Your task to perform on an android device: toggle notifications settings in the gmail app Image 0: 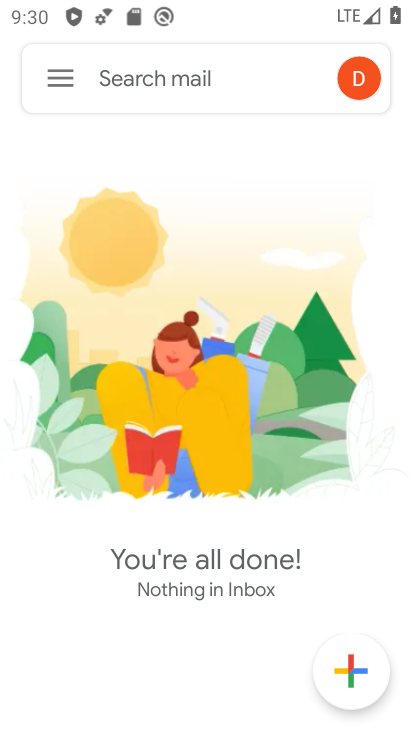
Step 0: press home button
Your task to perform on an android device: toggle notifications settings in the gmail app Image 1: 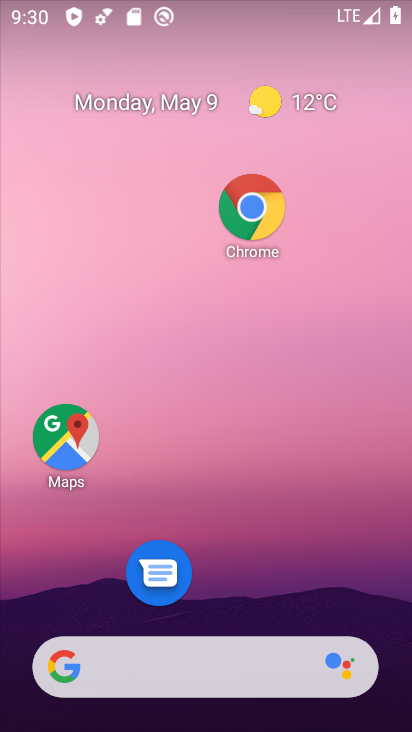
Step 1: drag from (298, 562) to (354, 146)
Your task to perform on an android device: toggle notifications settings in the gmail app Image 2: 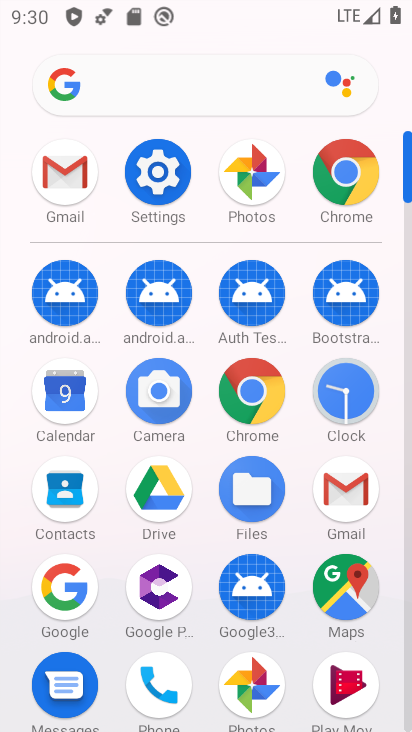
Step 2: click (353, 496)
Your task to perform on an android device: toggle notifications settings in the gmail app Image 3: 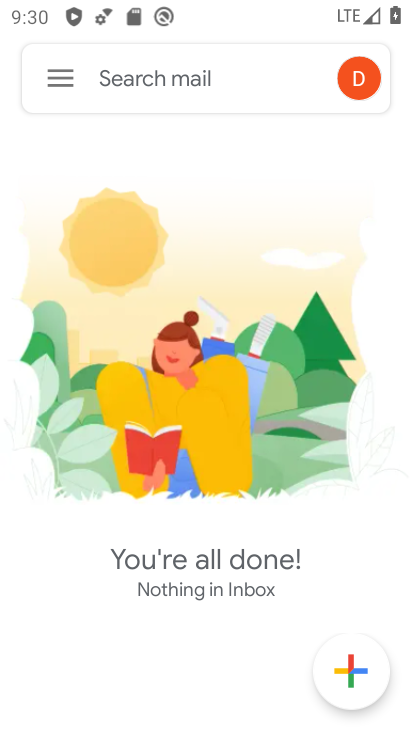
Step 3: click (57, 99)
Your task to perform on an android device: toggle notifications settings in the gmail app Image 4: 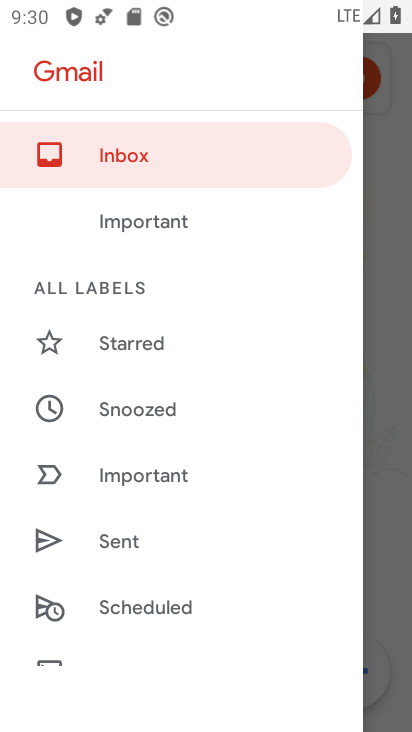
Step 4: drag from (155, 540) to (196, 174)
Your task to perform on an android device: toggle notifications settings in the gmail app Image 5: 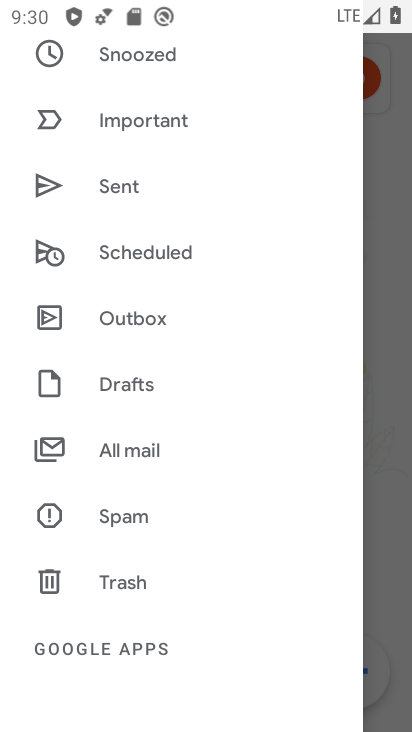
Step 5: drag from (150, 579) to (151, 217)
Your task to perform on an android device: toggle notifications settings in the gmail app Image 6: 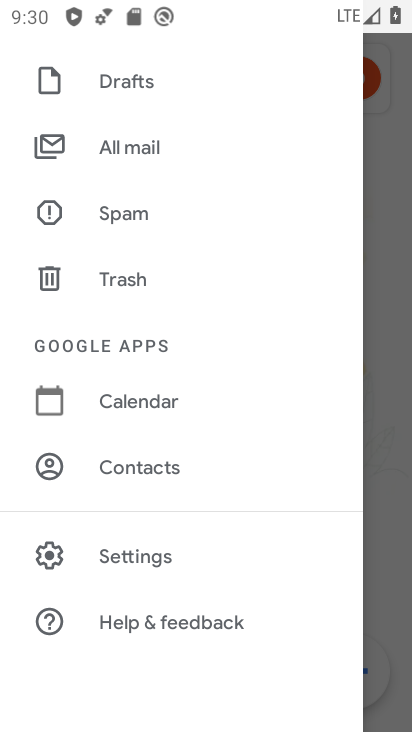
Step 6: click (93, 560)
Your task to perform on an android device: toggle notifications settings in the gmail app Image 7: 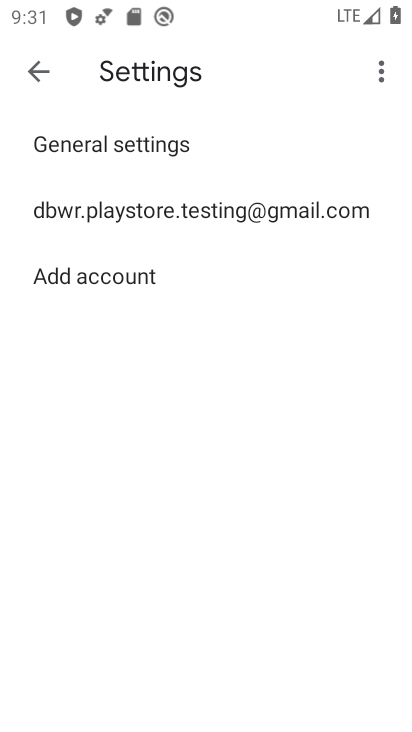
Step 7: click (60, 158)
Your task to perform on an android device: toggle notifications settings in the gmail app Image 8: 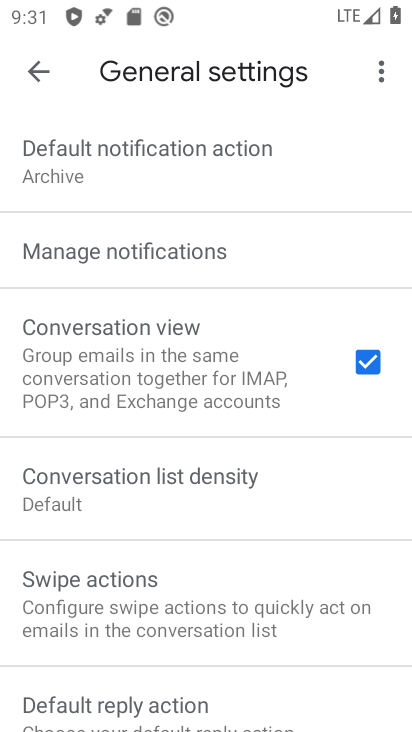
Step 8: click (145, 239)
Your task to perform on an android device: toggle notifications settings in the gmail app Image 9: 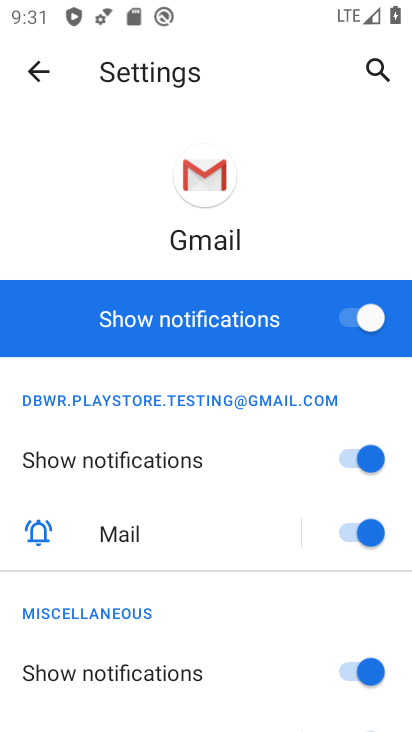
Step 9: drag from (181, 544) to (191, 389)
Your task to perform on an android device: toggle notifications settings in the gmail app Image 10: 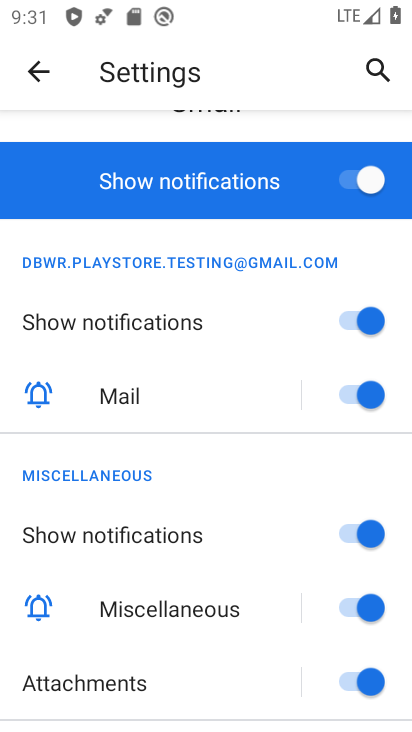
Step 10: click (349, 194)
Your task to perform on an android device: toggle notifications settings in the gmail app Image 11: 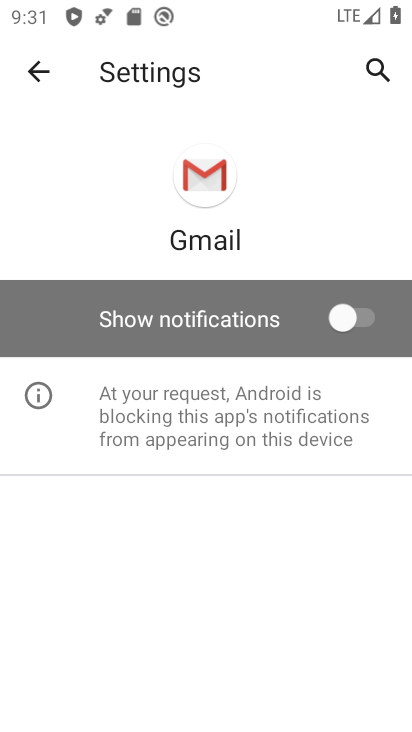
Step 11: task complete